Your task to perform on an android device: stop showing notifications on the lock screen Image 0: 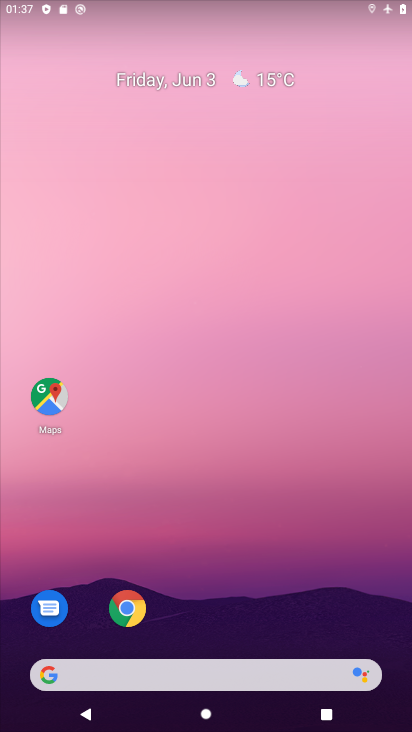
Step 0: drag from (243, 566) to (245, 128)
Your task to perform on an android device: stop showing notifications on the lock screen Image 1: 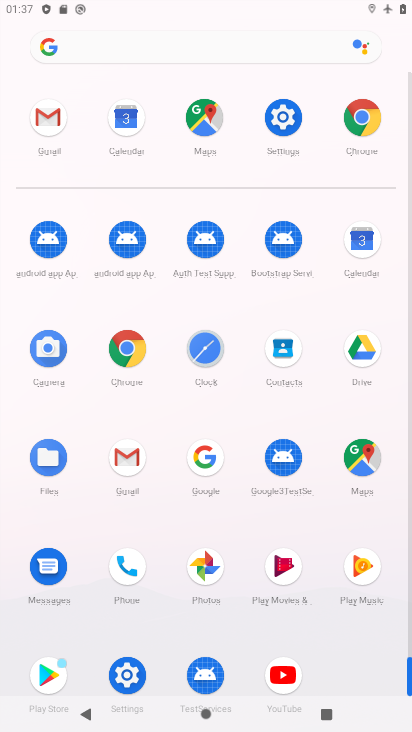
Step 1: click (281, 104)
Your task to perform on an android device: stop showing notifications on the lock screen Image 2: 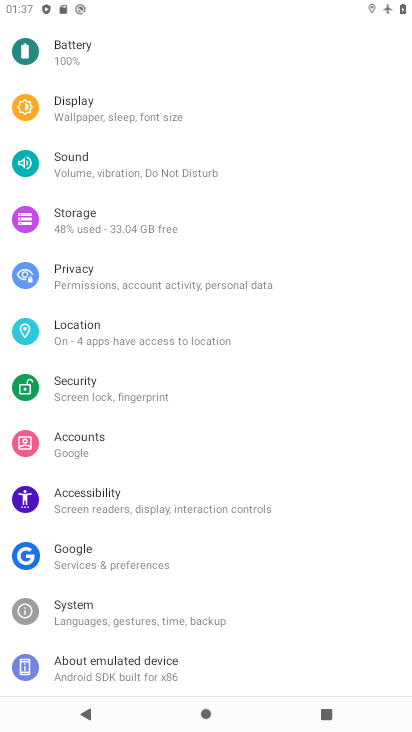
Step 2: drag from (238, 141) to (180, 432)
Your task to perform on an android device: stop showing notifications on the lock screen Image 3: 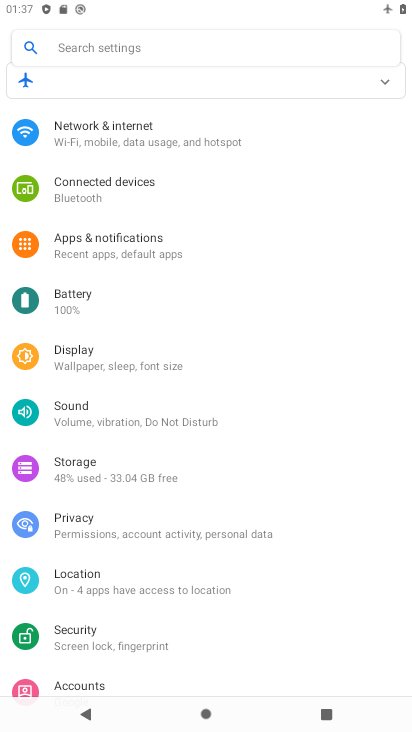
Step 3: click (145, 246)
Your task to perform on an android device: stop showing notifications on the lock screen Image 4: 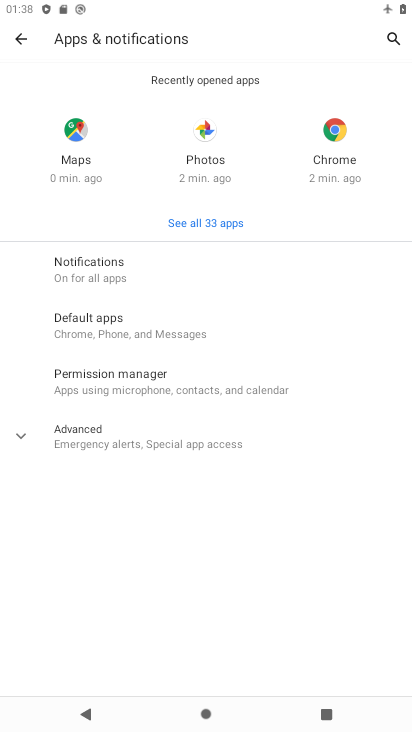
Step 4: click (121, 271)
Your task to perform on an android device: stop showing notifications on the lock screen Image 5: 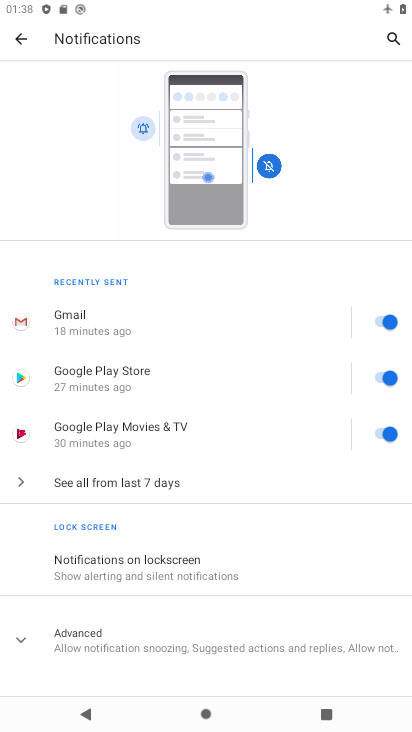
Step 5: click (167, 569)
Your task to perform on an android device: stop showing notifications on the lock screen Image 6: 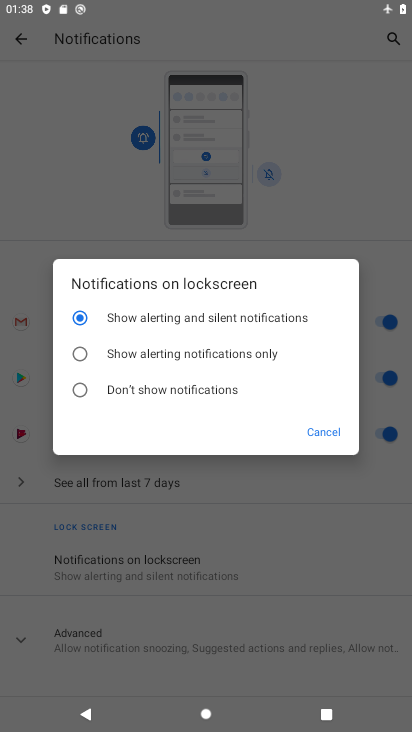
Step 6: click (159, 390)
Your task to perform on an android device: stop showing notifications on the lock screen Image 7: 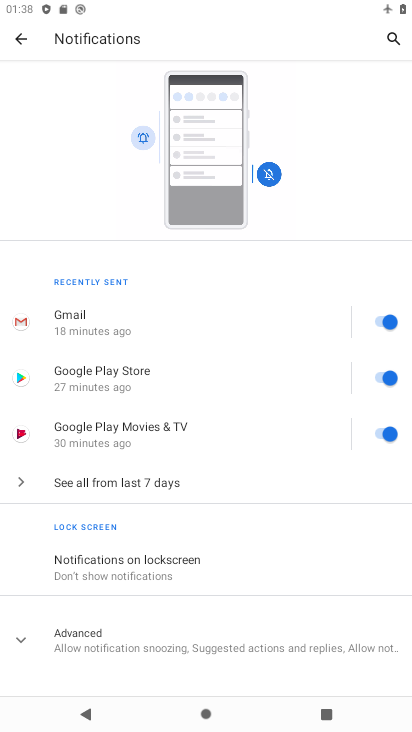
Step 7: task complete